Your task to perform on an android device: Do I have any events today? Image 0: 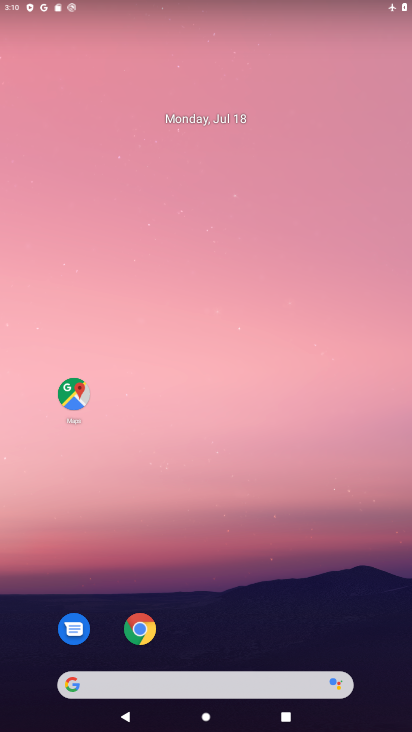
Step 0: drag from (209, 666) to (148, 150)
Your task to perform on an android device: Do I have any events today? Image 1: 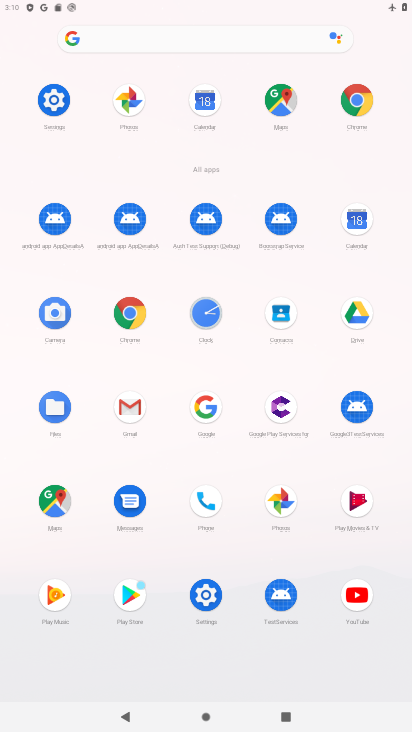
Step 1: click (357, 219)
Your task to perform on an android device: Do I have any events today? Image 2: 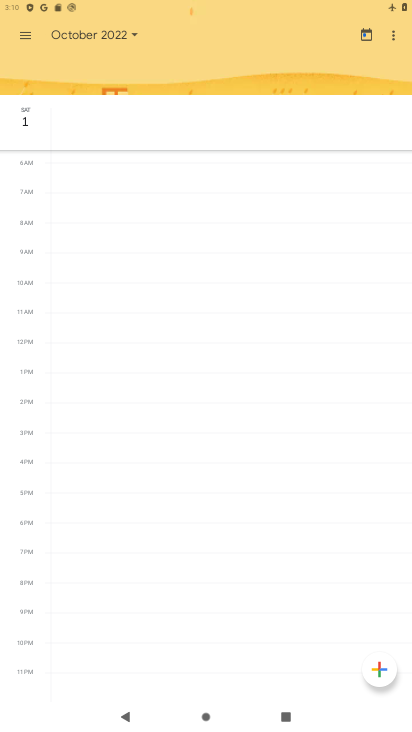
Step 2: click (365, 34)
Your task to perform on an android device: Do I have any events today? Image 3: 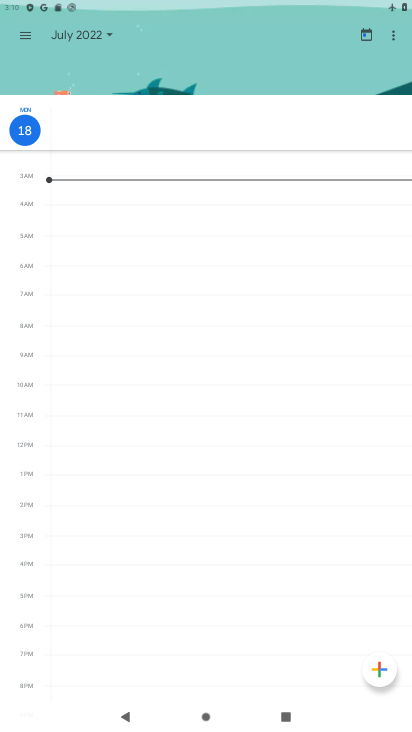
Step 3: click (29, 126)
Your task to perform on an android device: Do I have any events today? Image 4: 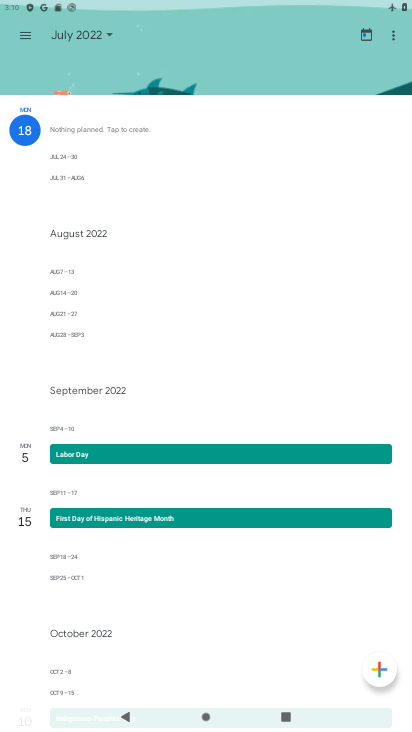
Step 4: task complete